Your task to perform on an android device: turn on translation in the chrome app Image 0: 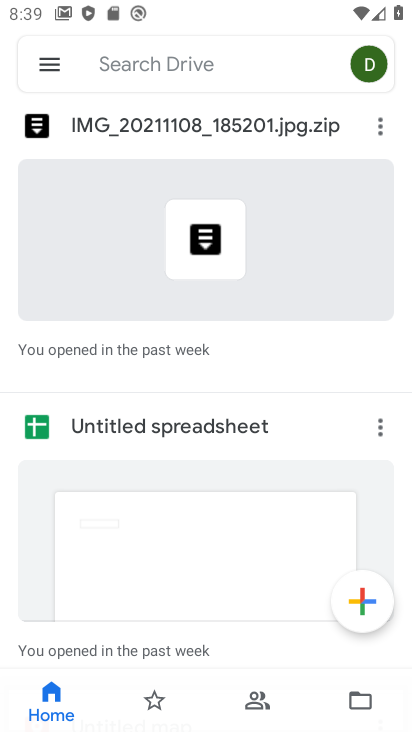
Step 0: press home button
Your task to perform on an android device: turn on translation in the chrome app Image 1: 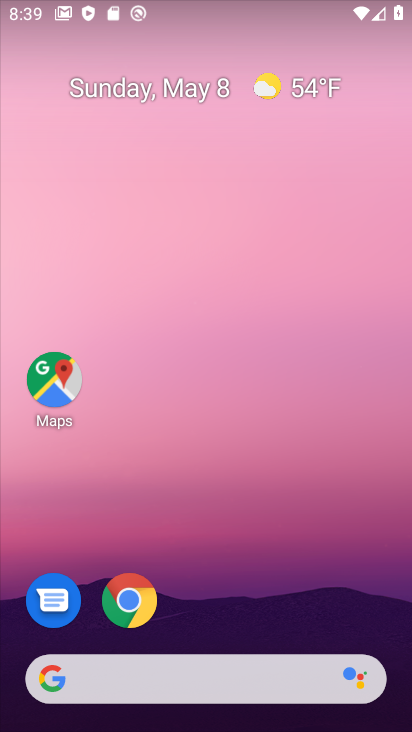
Step 1: click (126, 599)
Your task to perform on an android device: turn on translation in the chrome app Image 2: 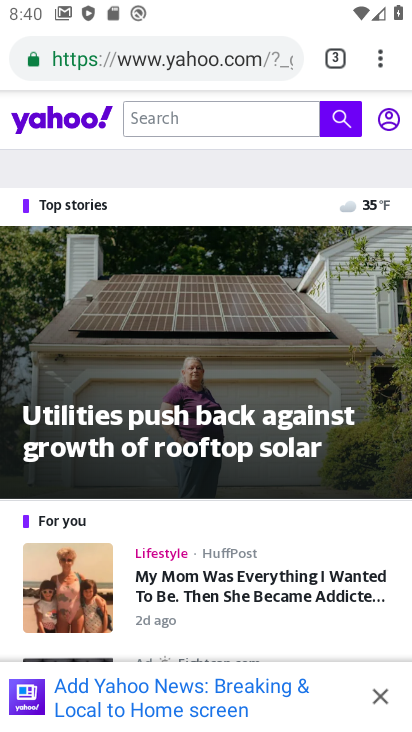
Step 2: click (375, 57)
Your task to perform on an android device: turn on translation in the chrome app Image 3: 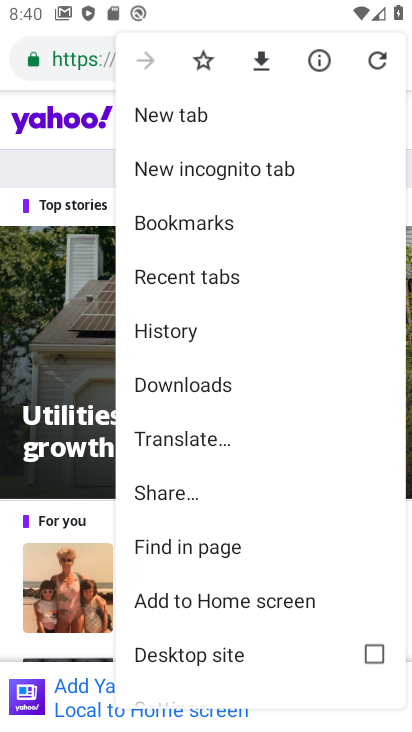
Step 3: drag from (174, 647) to (260, 219)
Your task to perform on an android device: turn on translation in the chrome app Image 4: 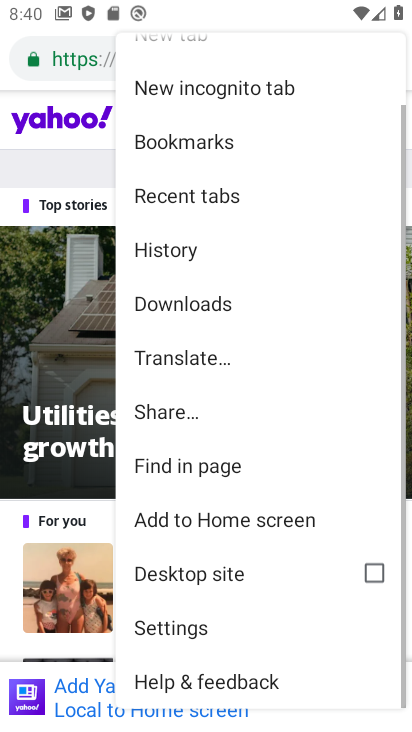
Step 4: click (186, 623)
Your task to perform on an android device: turn on translation in the chrome app Image 5: 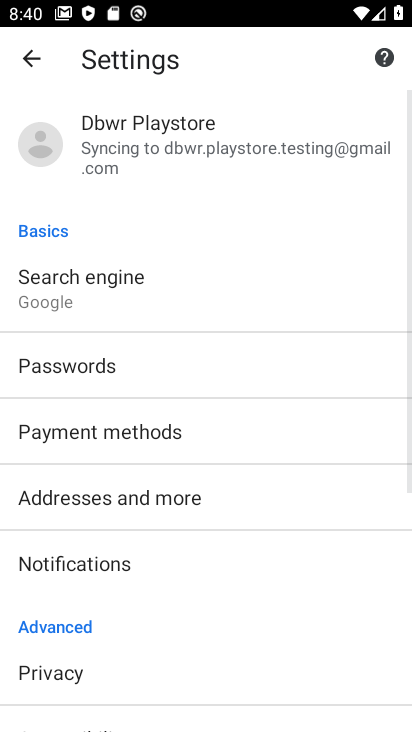
Step 5: drag from (118, 545) to (210, 48)
Your task to perform on an android device: turn on translation in the chrome app Image 6: 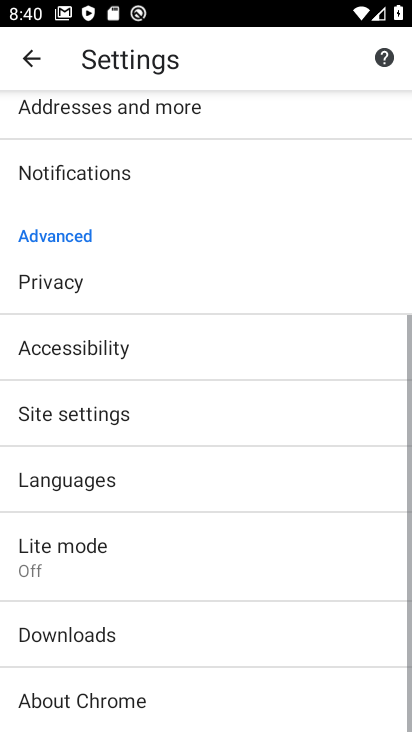
Step 6: click (125, 473)
Your task to perform on an android device: turn on translation in the chrome app Image 7: 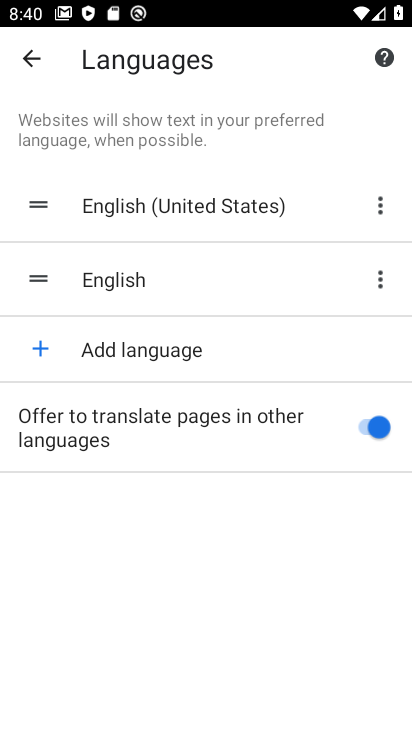
Step 7: task complete